Your task to perform on an android device: Is it going to rain this weekend? Image 0: 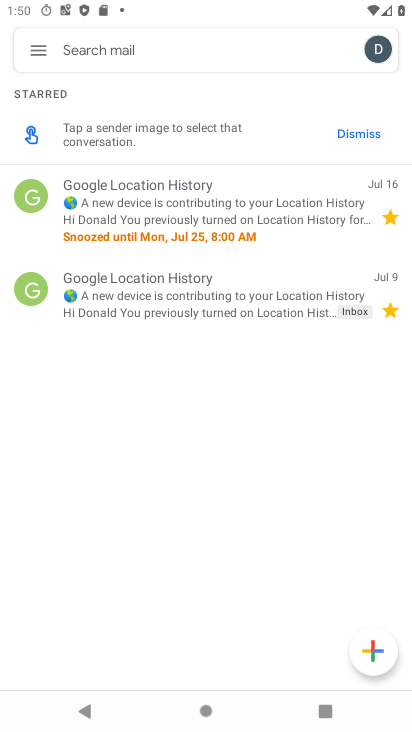
Step 0: press home button
Your task to perform on an android device: Is it going to rain this weekend? Image 1: 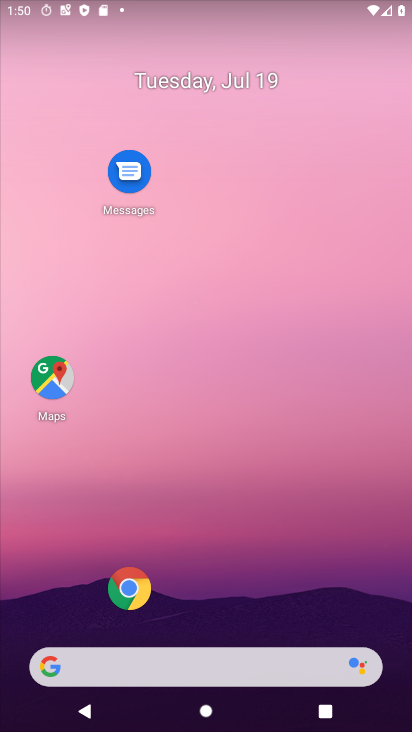
Step 1: click (145, 670)
Your task to perform on an android device: Is it going to rain this weekend? Image 2: 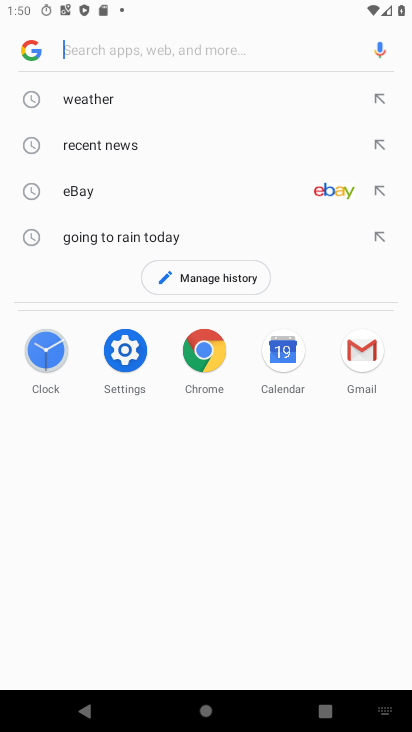
Step 2: type "Is it going to rain this weekend?"
Your task to perform on an android device: Is it going to rain this weekend? Image 3: 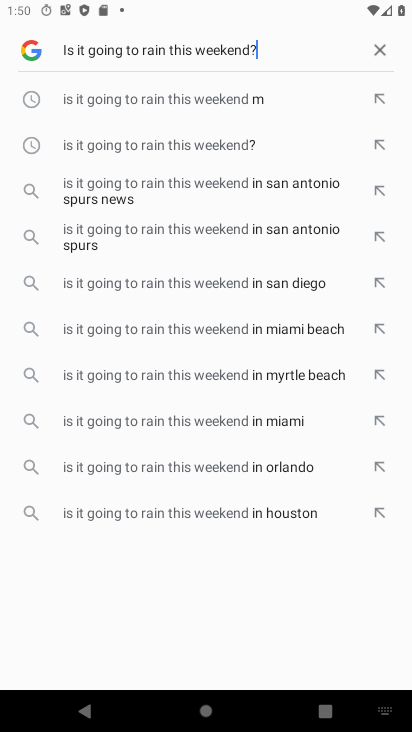
Step 3: type ""
Your task to perform on an android device: Is it going to rain this weekend? Image 4: 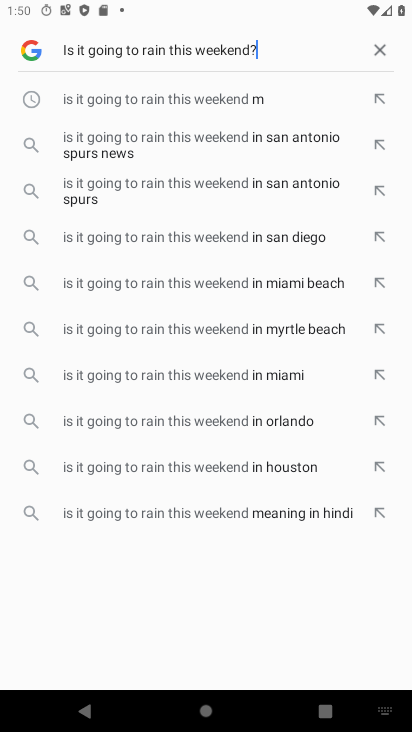
Step 4: type ""
Your task to perform on an android device: Is it going to rain this weekend? Image 5: 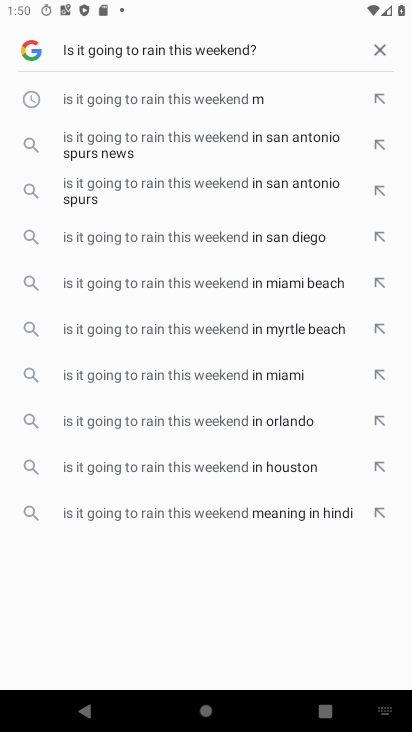
Step 5: type ""
Your task to perform on an android device: Is it going to rain this weekend? Image 6: 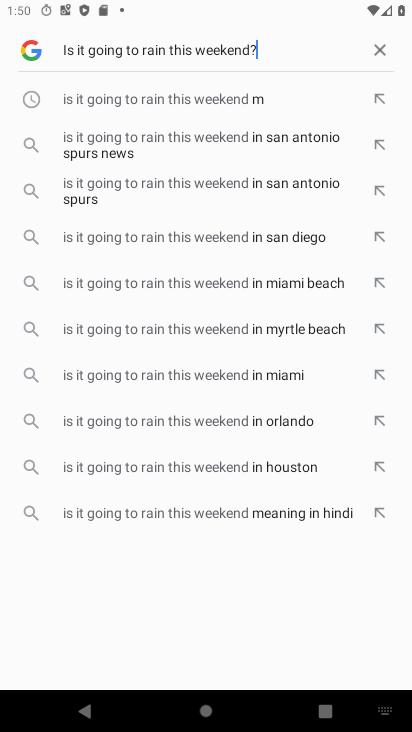
Step 6: task complete